Your task to perform on an android device: Go to CNN.com Image 0: 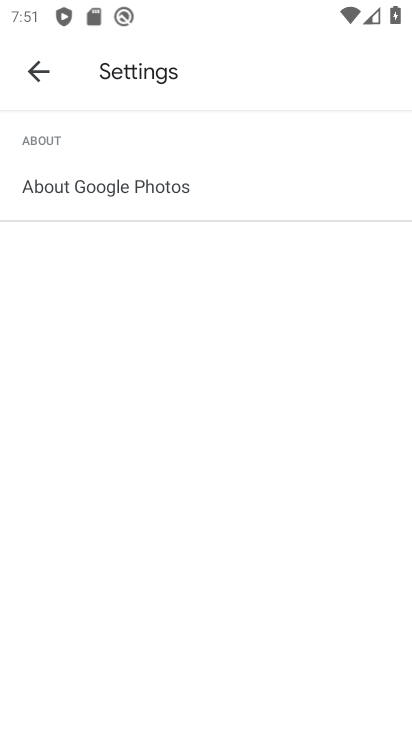
Step 0: press home button
Your task to perform on an android device: Go to CNN.com Image 1: 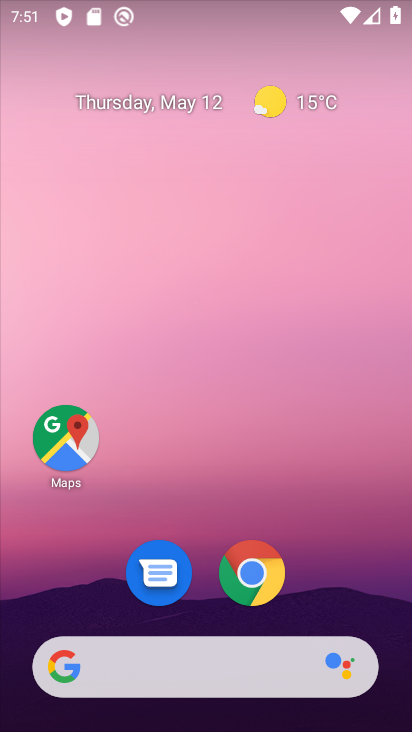
Step 1: click (244, 572)
Your task to perform on an android device: Go to CNN.com Image 2: 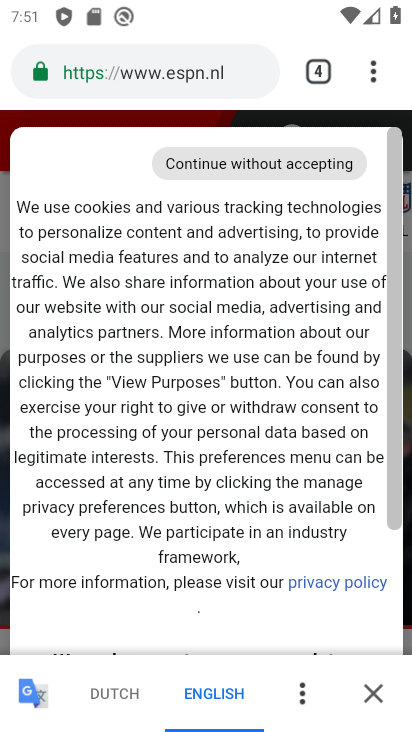
Step 2: click (380, 73)
Your task to perform on an android device: Go to CNN.com Image 3: 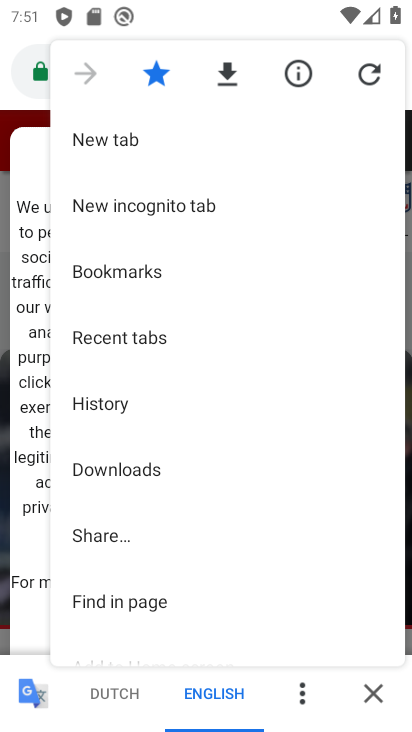
Step 3: click (124, 134)
Your task to perform on an android device: Go to CNN.com Image 4: 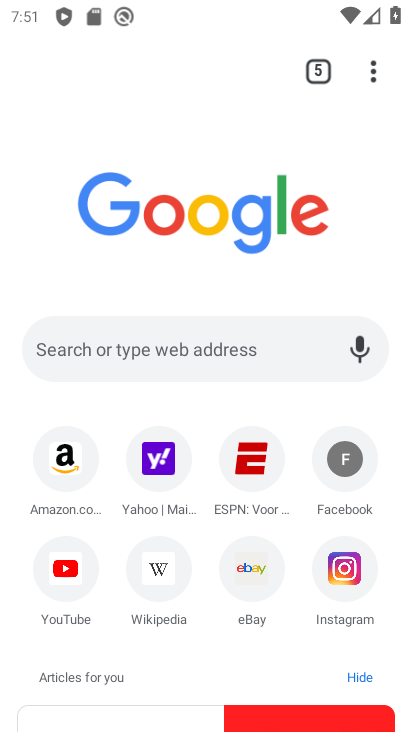
Step 4: click (130, 346)
Your task to perform on an android device: Go to CNN.com Image 5: 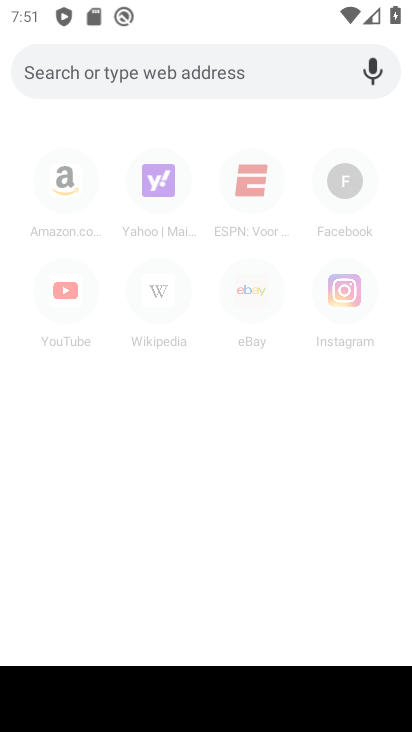
Step 5: type "cnn.com"
Your task to perform on an android device: Go to CNN.com Image 6: 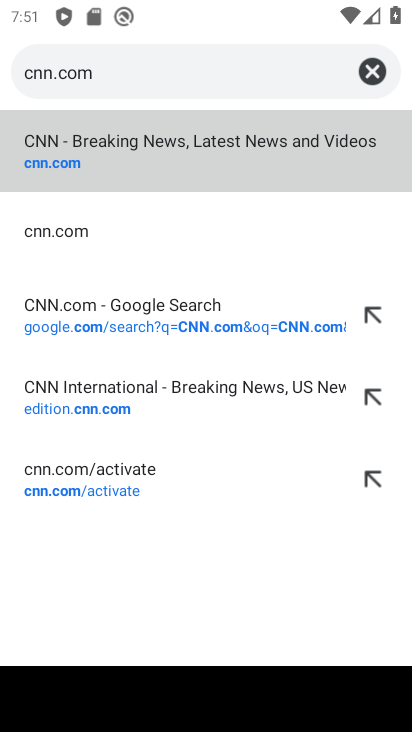
Step 6: click (141, 146)
Your task to perform on an android device: Go to CNN.com Image 7: 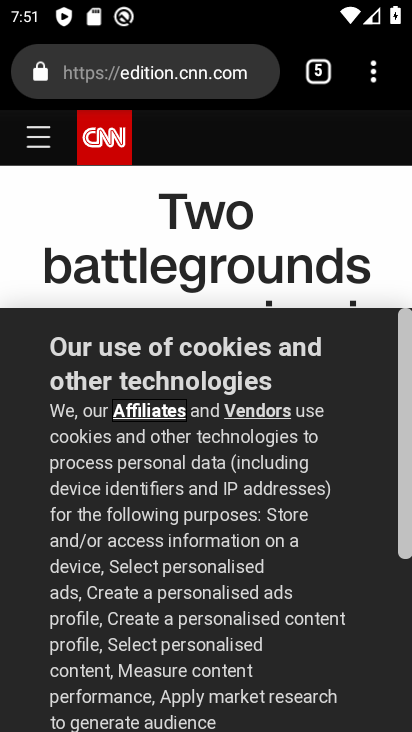
Step 7: task complete